Your task to perform on an android device: open device folders in google photos Image 0: 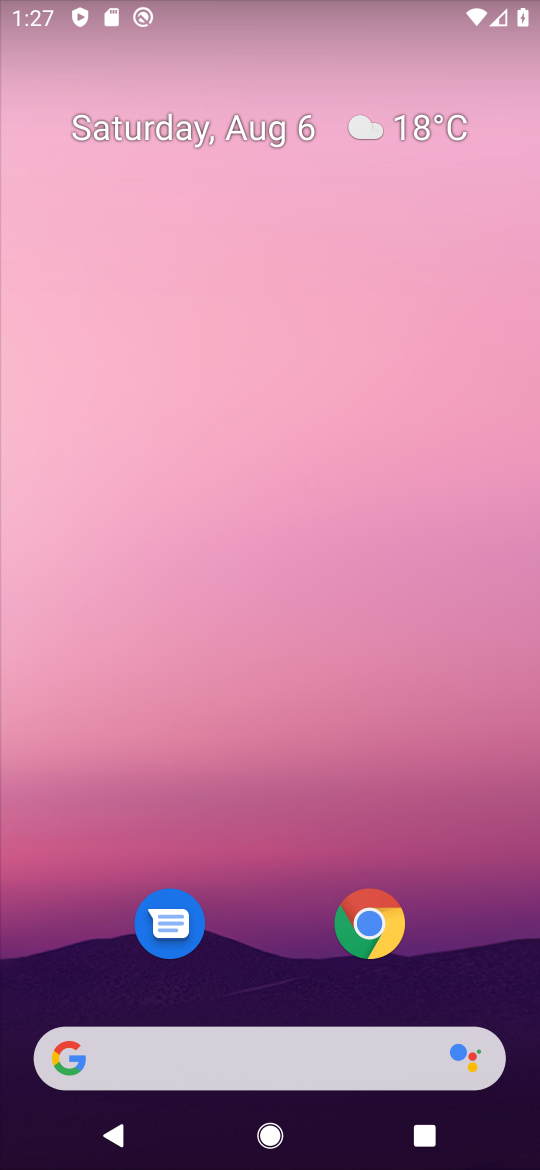
Step 0: press home button
Your task to perform on an android device: open device folders in google photos Image 1: 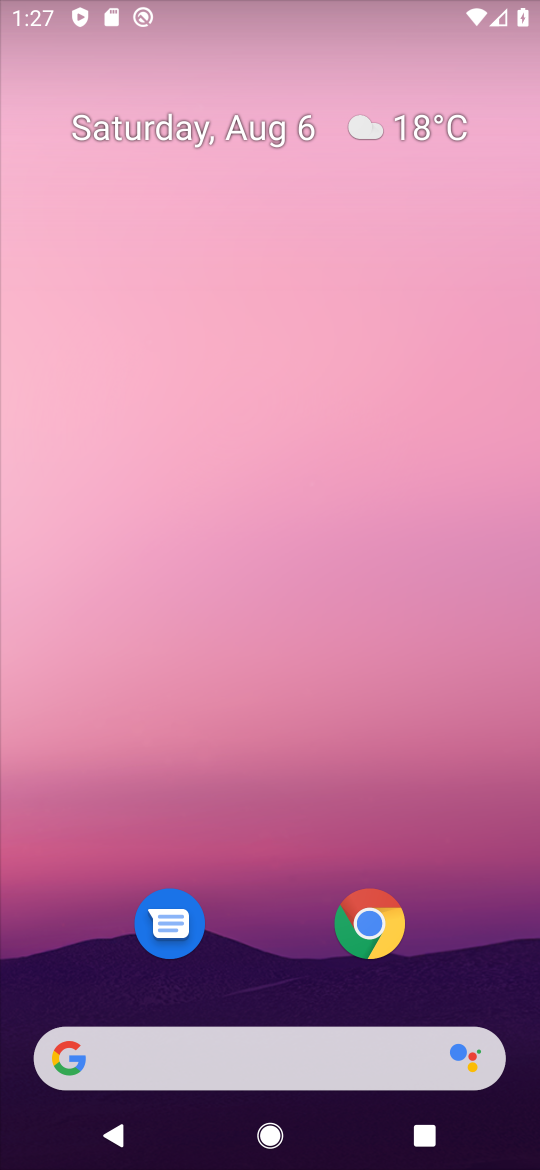
Step 1: drag from (275, 715) to (272, 103)
Your task to perform on an android device: open device folders in google photos Image 2: 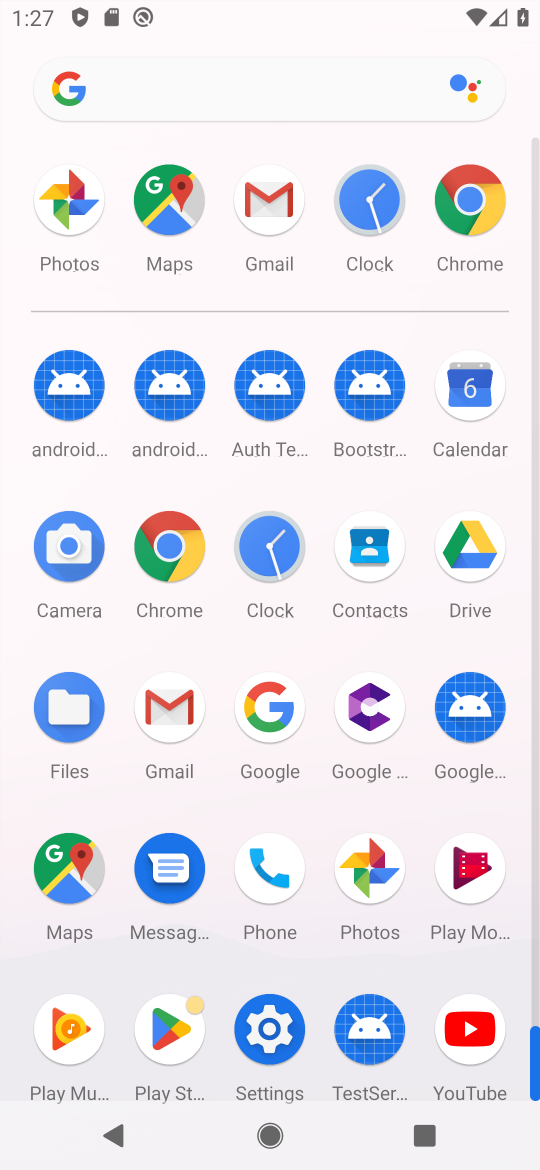
Step 2: press home button
Your task to perform on an android device: open device folders in google photos Image 3: 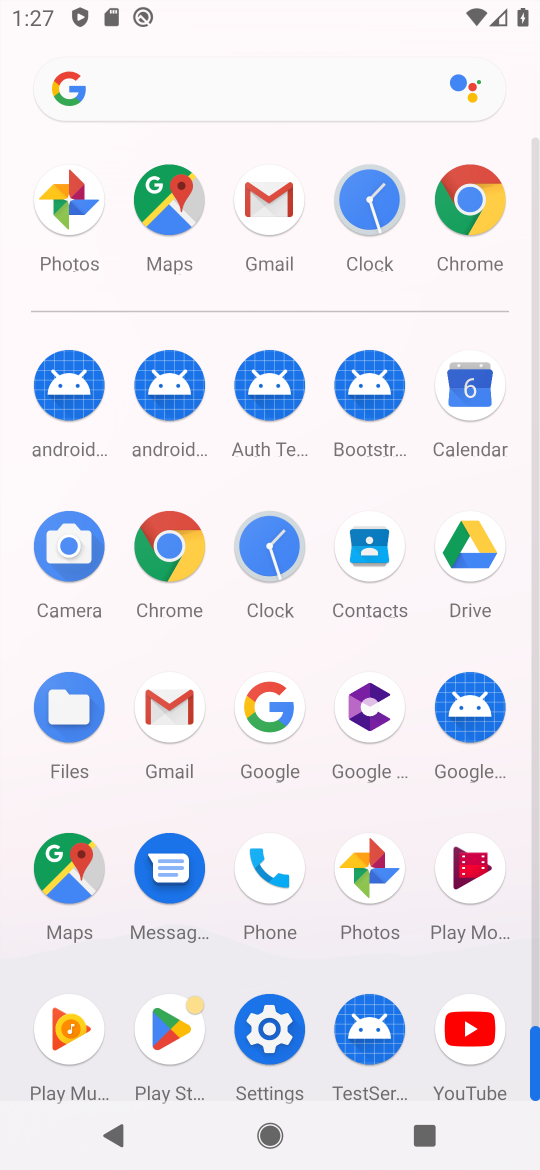
Step 3: drag from (327, 769) to (327, 297)
Your task to perform on an android device: open device folders in google photos Image 4: 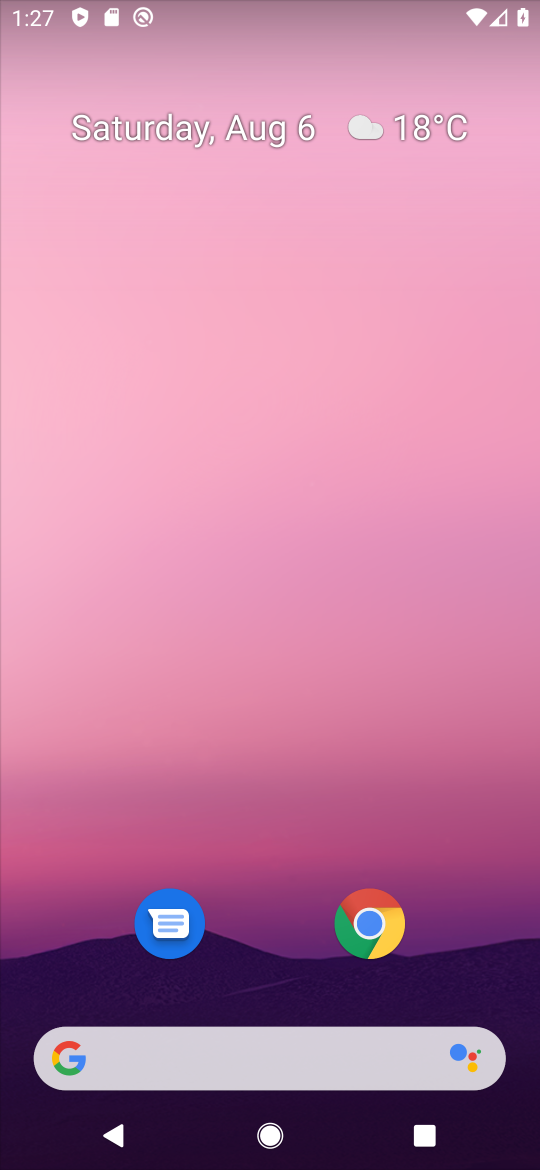
Step 4: drag from (265, 954) to (270, 116)
Your task to perform on an android device: open device folders in google photos Image 5: 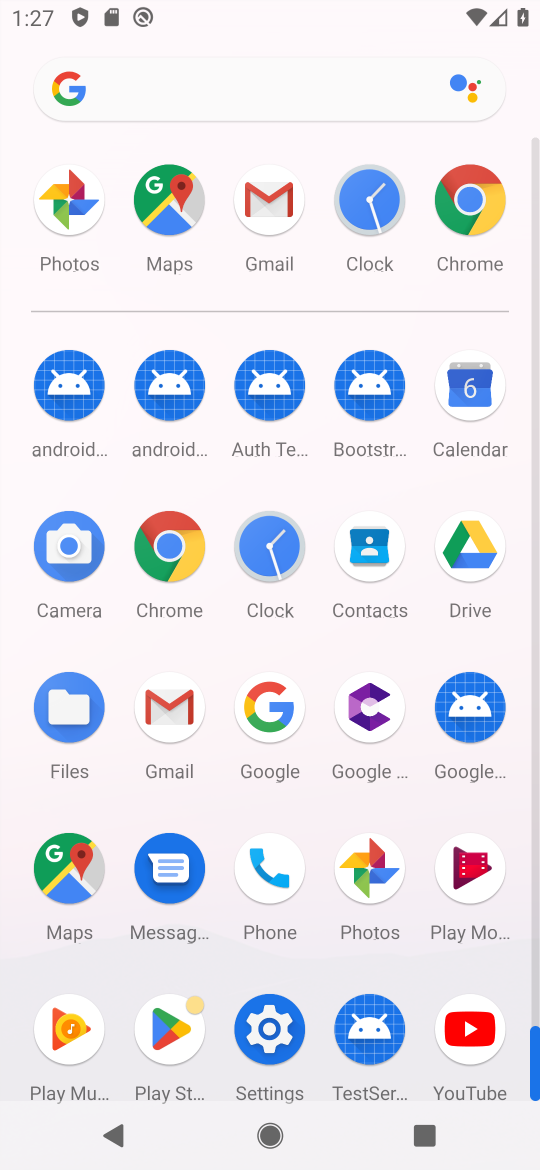
Step 5: click (377, 856)
Your task to perform on an android device: open device folders in google photos Image 6: 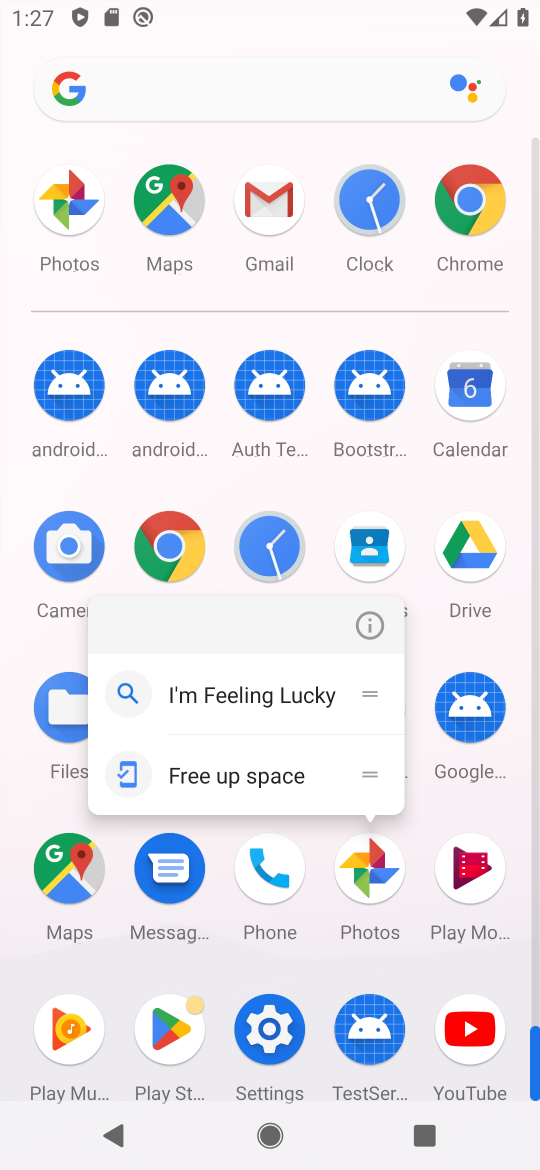
Step 6: click (371, 616)
Your task to perform on an android device: open device folders in google photos Image 7: 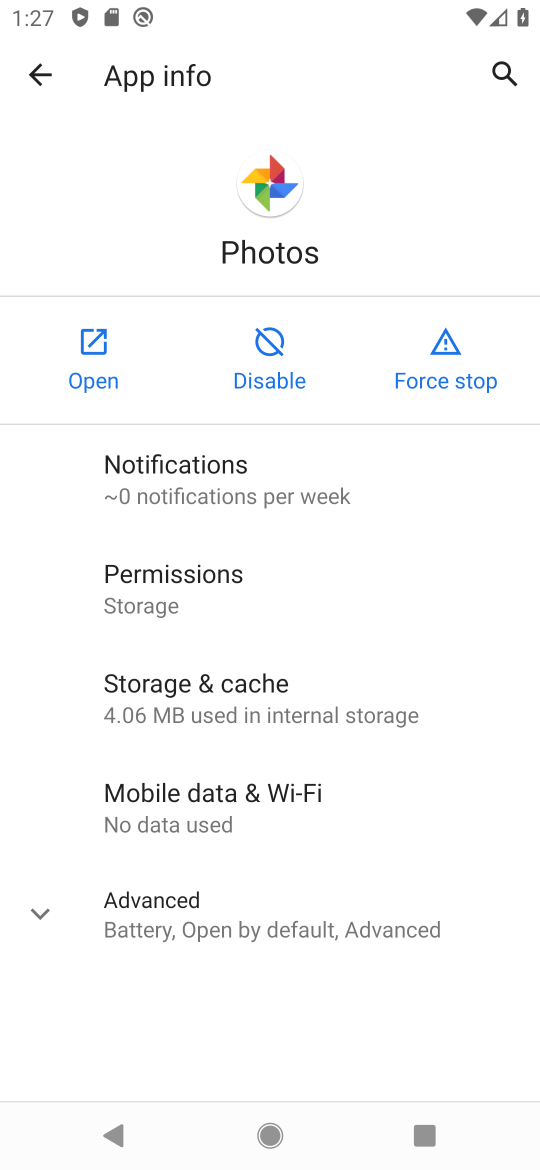
Step 7: click (91, 352)
Your task to perform on an android device: open device folders in google photos Image 8: 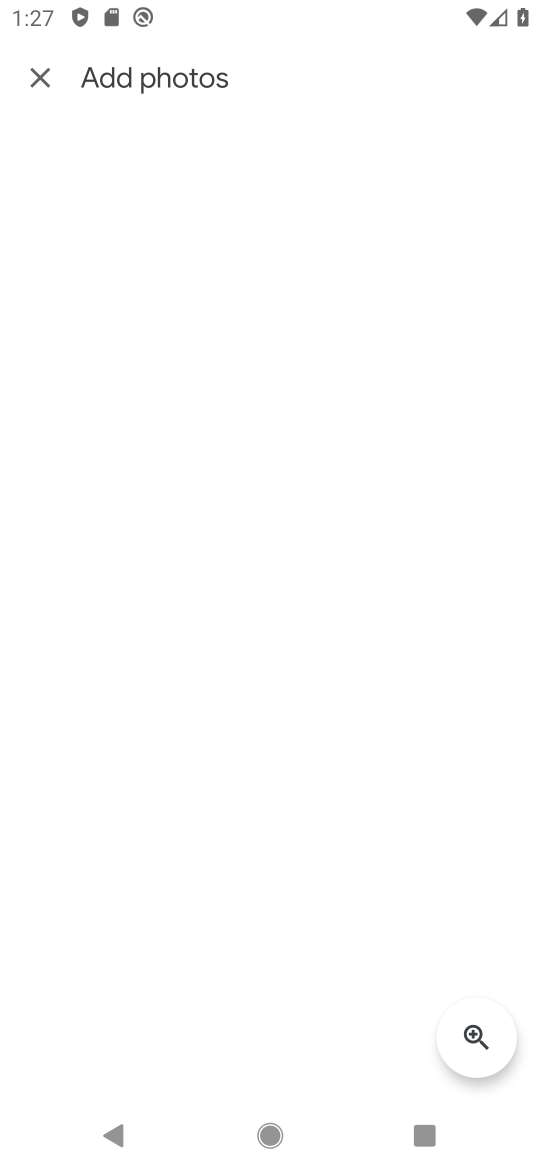
Step 8: click (51, 69)
Your task to perform on an android device: open device folders in google photos Image 9: 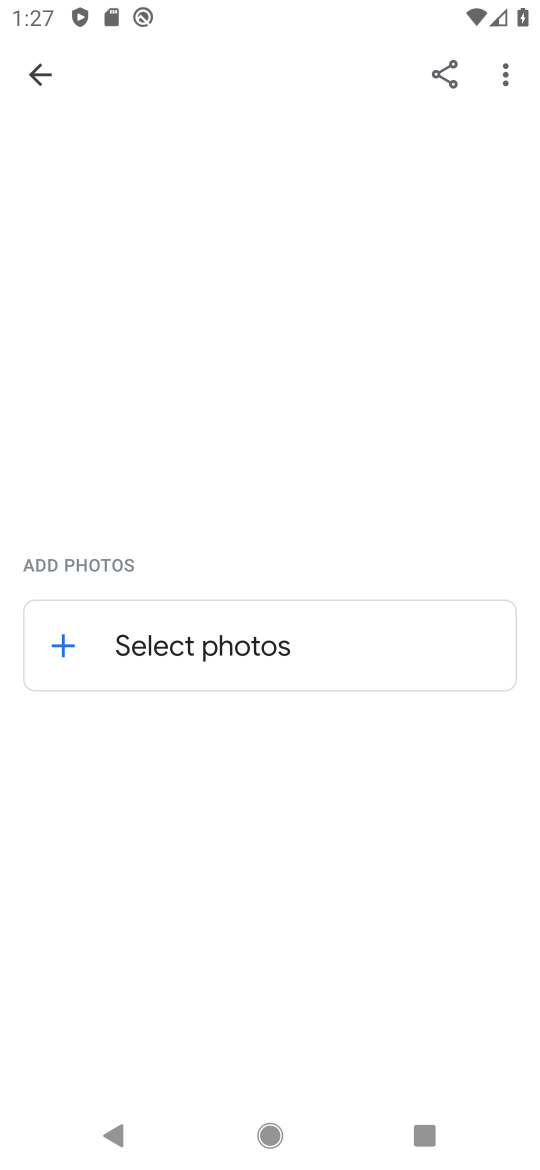
Step 9: click (66, 77)
Your task to perform on an android device: open device folders in google photos Image 10: 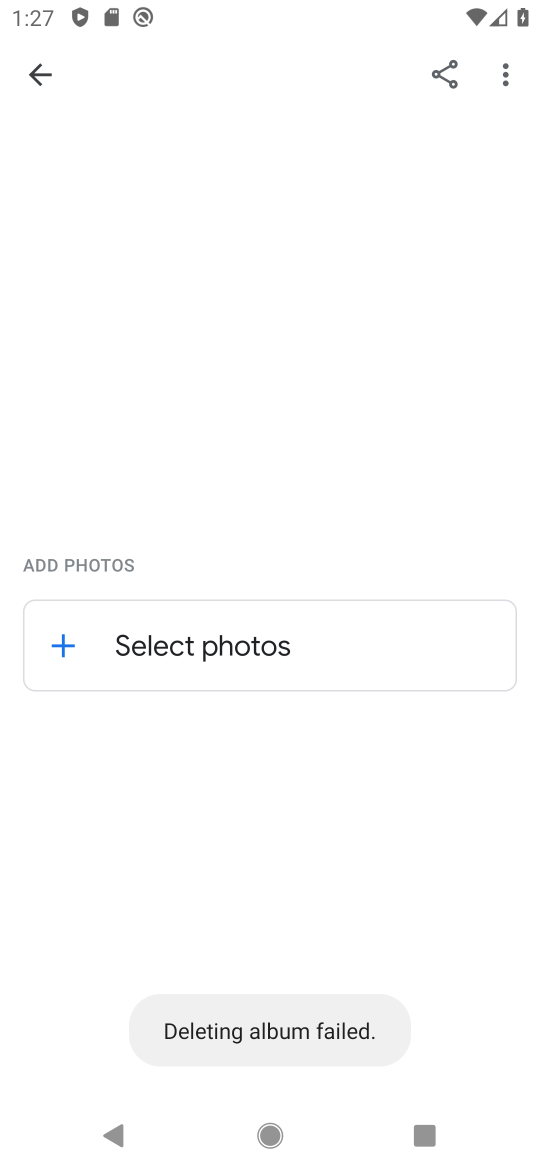
Step 10: press back button
Your task to perform on an android device: open device folders in google photos Image 11: 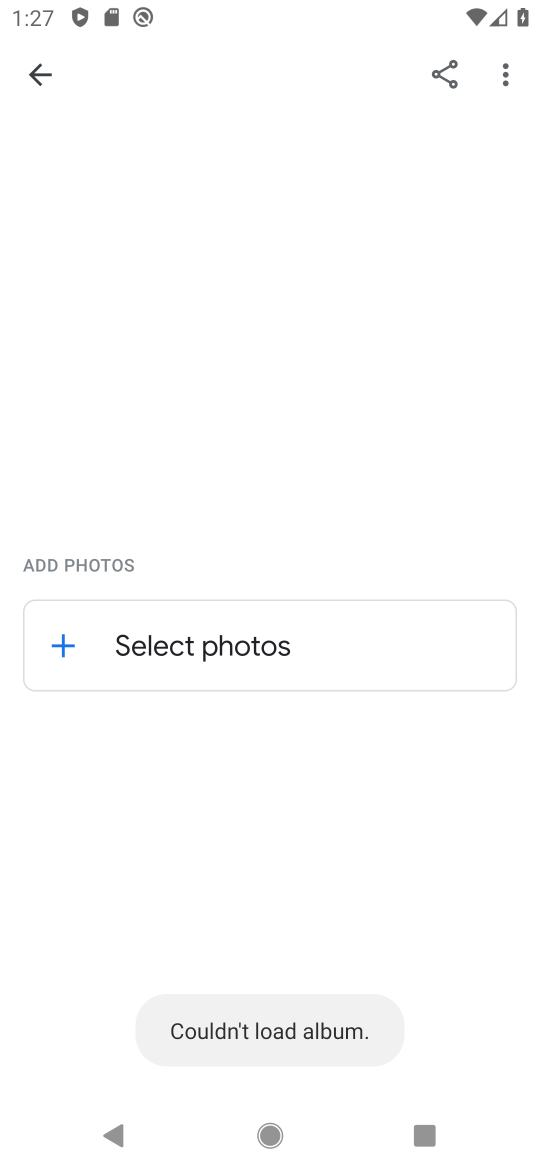
Step 11: click (38, 61)
Your task to perform on an android device: open device folders in google photos Image 12: 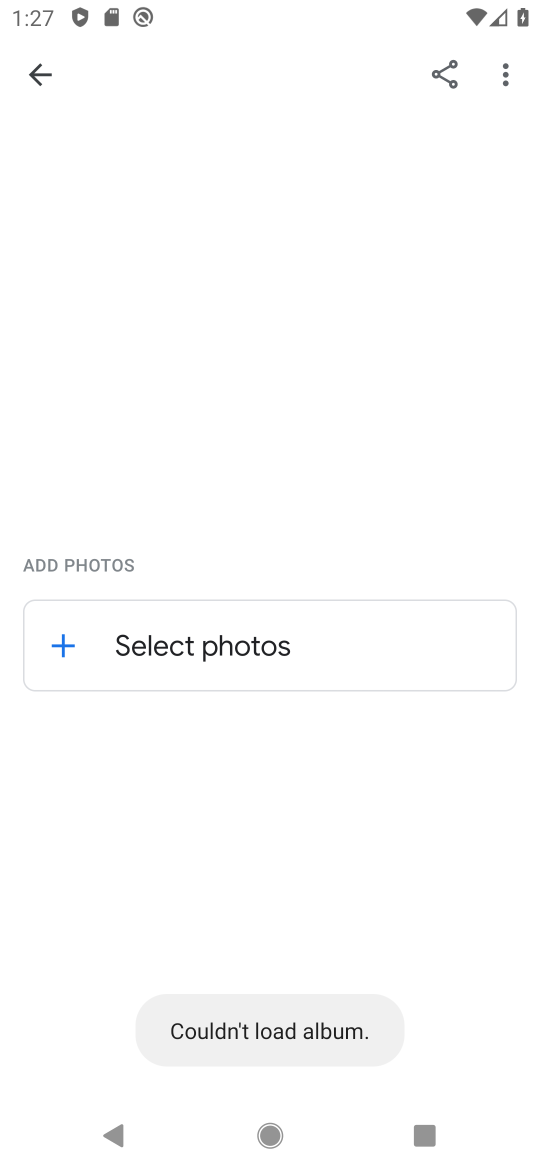
Step 12: click (17, 71)
Your task to perform on an android device: open device folders in google photos Image 13: 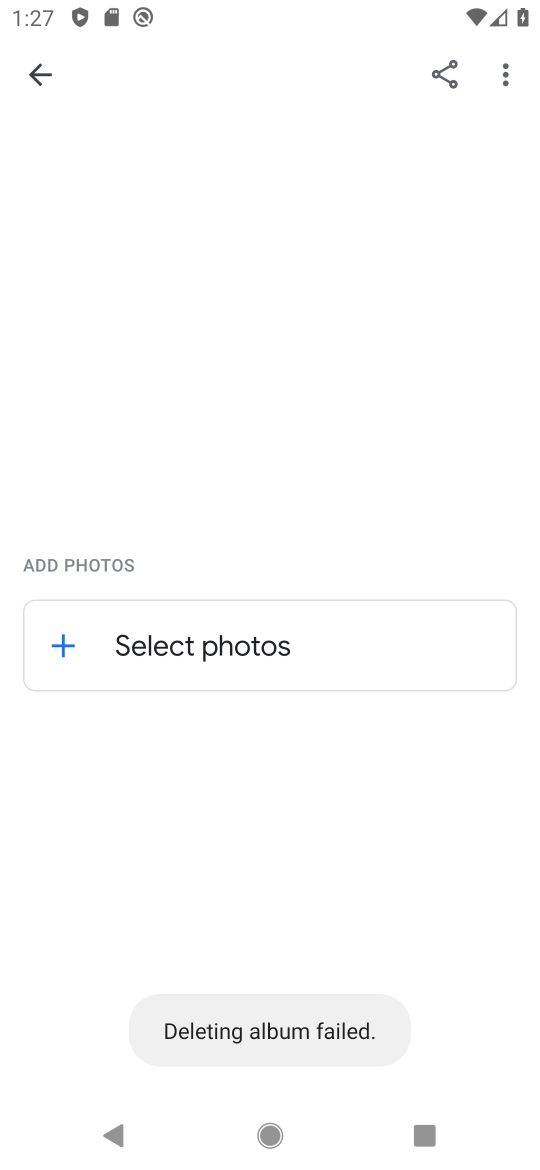
Step 13: click (14, 73)
Your task to perform on an android device: open device folders in google photos Image 14: 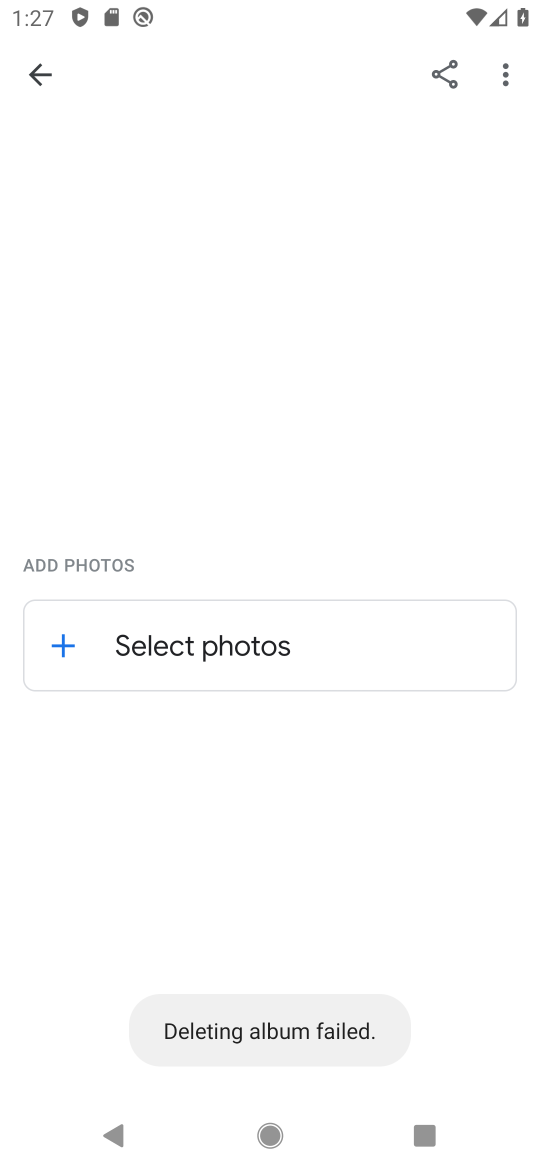
Step 14: press home button
Your task to perform on an android device: open device folders in google photos Image 15: 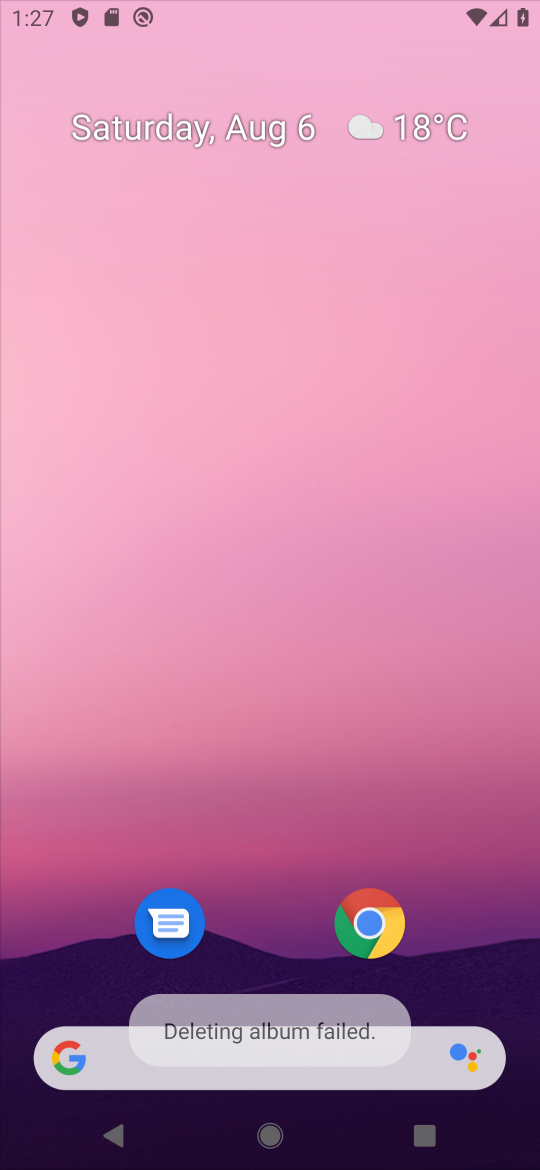
Step 15: drag from (311, 781) to (393, 220)
Your task to perform on an android device: open device folders in google photos Image 16: 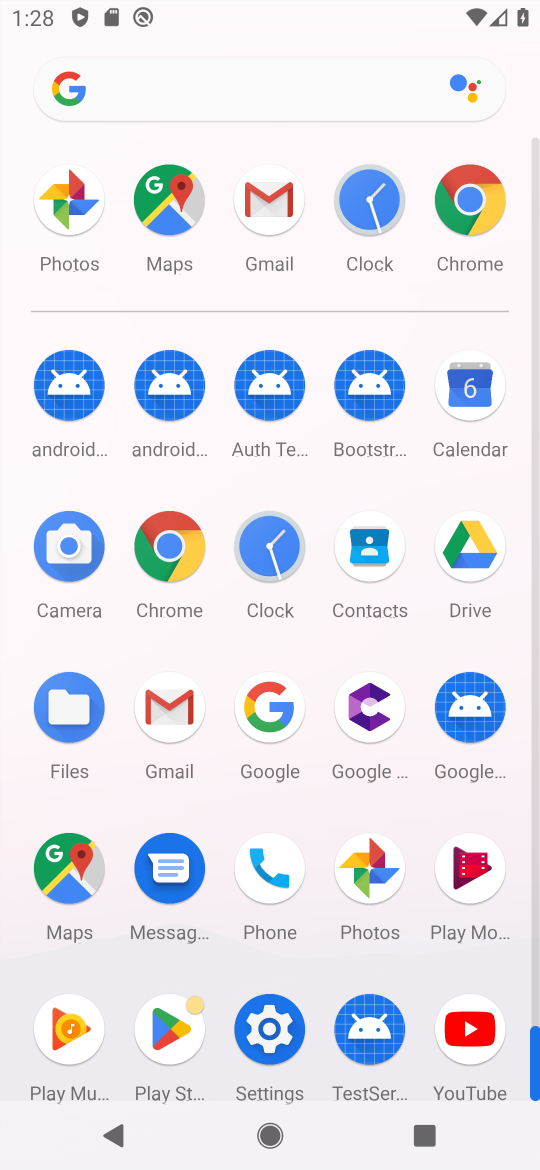
Step 16: click (368, 846)
Your task to perform on an android device: open device folders in google photos Image 17: 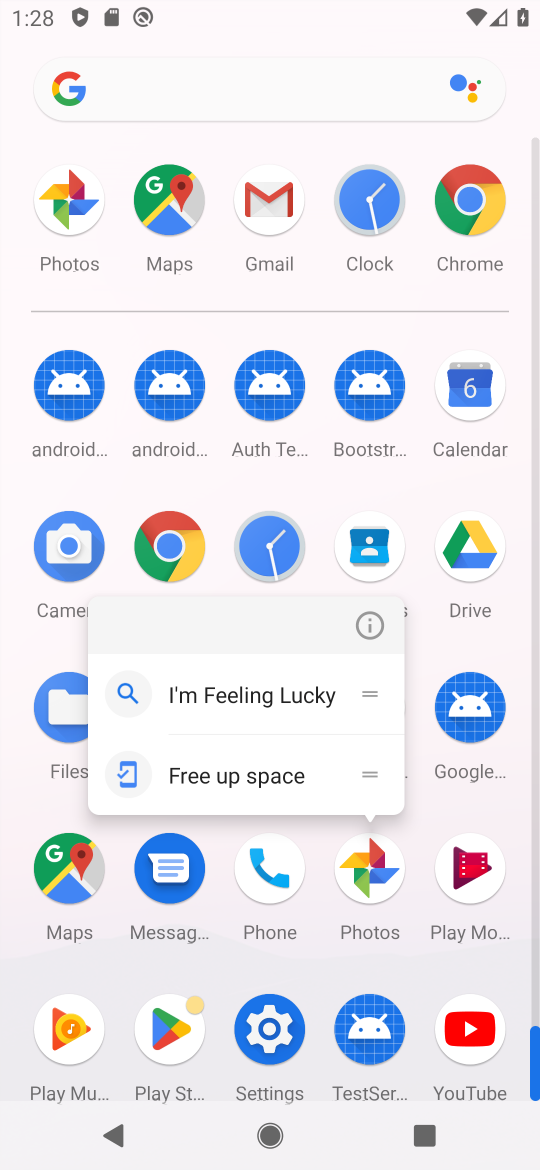
Step 17: click (364, 618)
Your task to perform on an android device: open device folders in google photos Image 18: 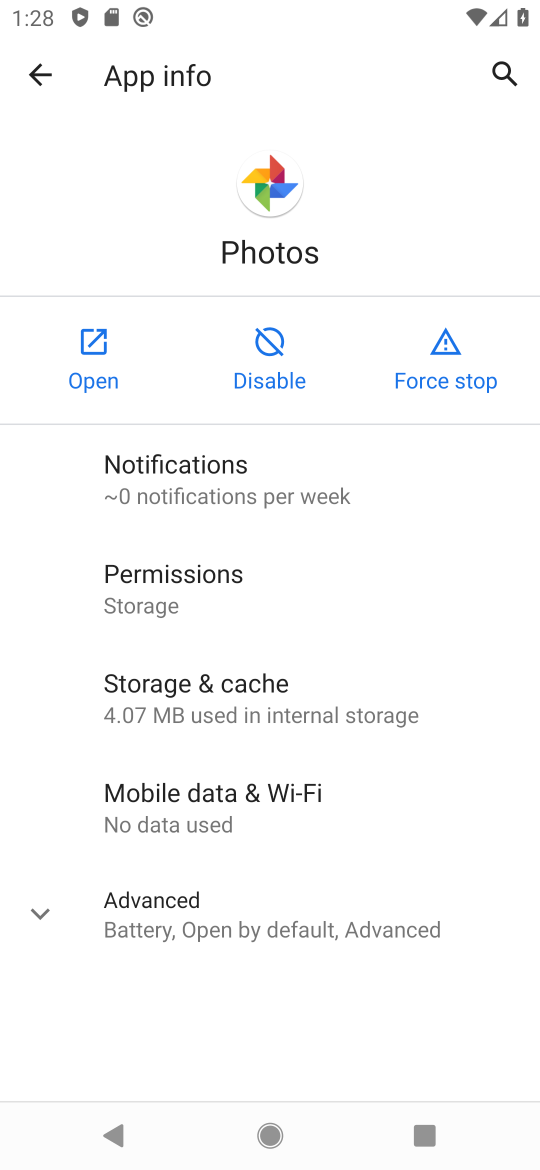
Step 18: click (106, 352)
Your task to perform on an android device: open device folders in google photos Image 19: 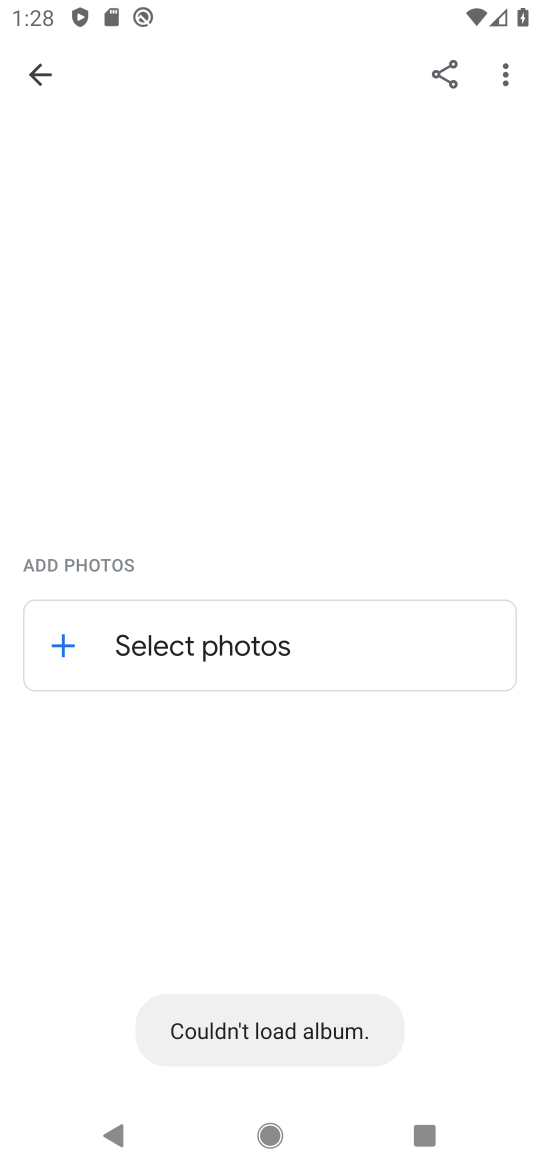
Step 19: click (36, 67)
Your task to perform on an android device: open device folders in google photos Image 20: 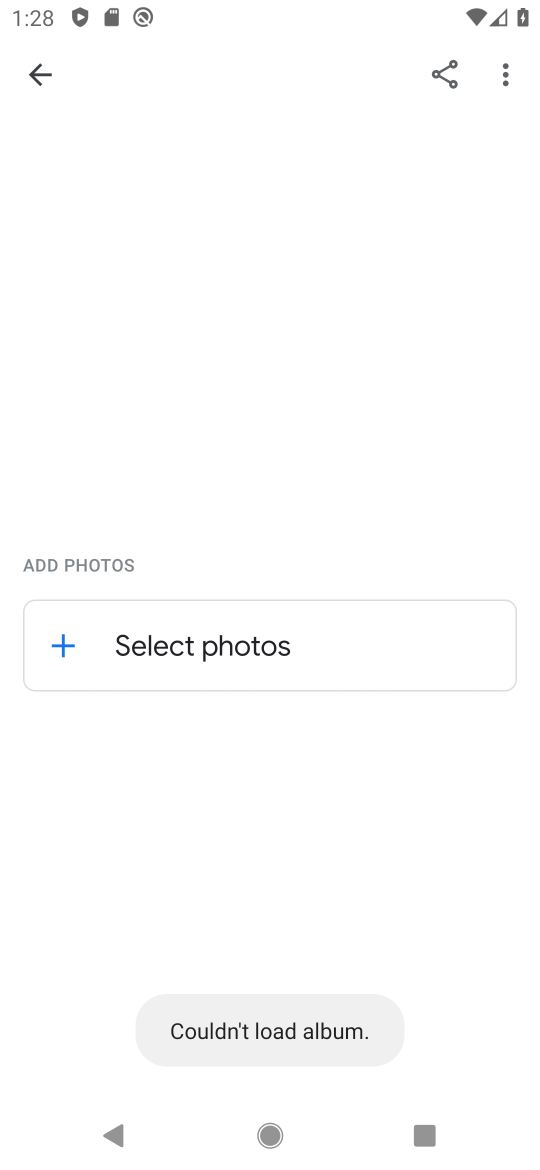
Step 20: click (36, 67)
Your task to perform on an android device: open device folders in google photos Image 21: 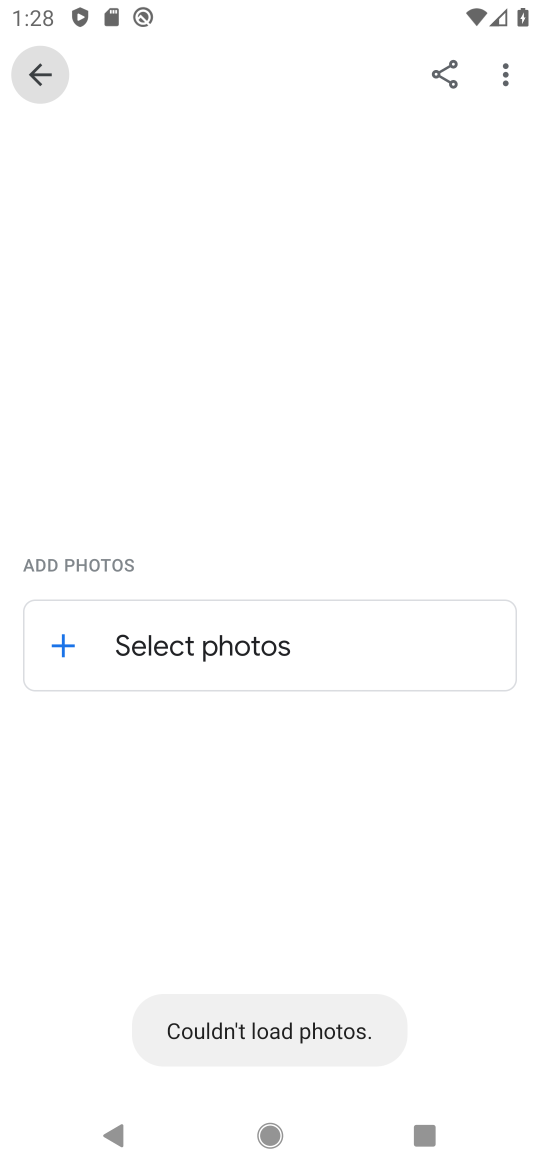
Step 21: click (36, 67)
Your task to perform on an android device: open device folders in google photos Image 22: 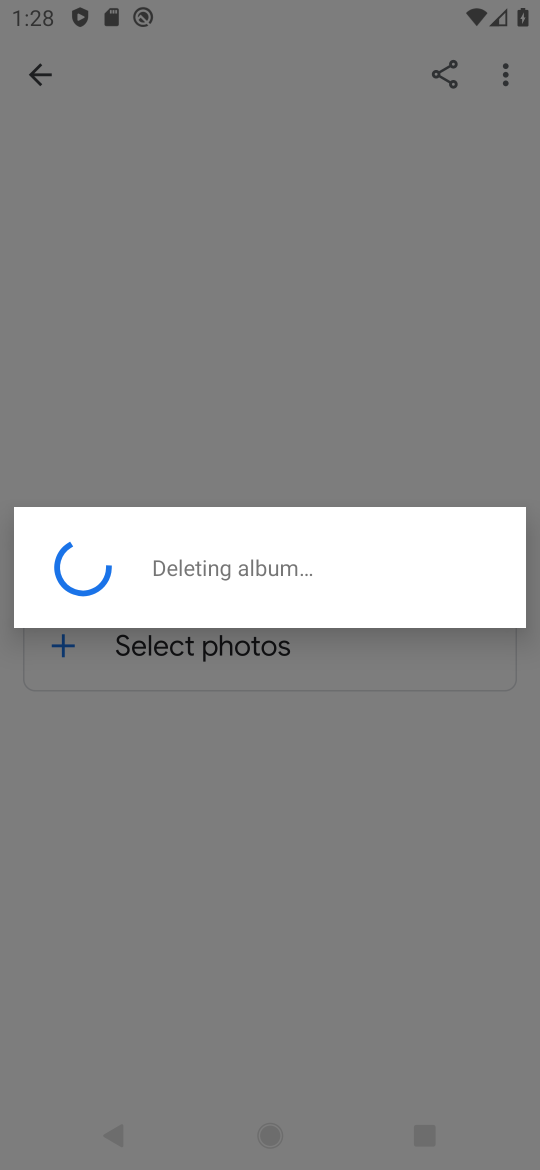
Step 22: click (36, 67)
Your task to perform on an android device: open device folders in google photos Image 23: 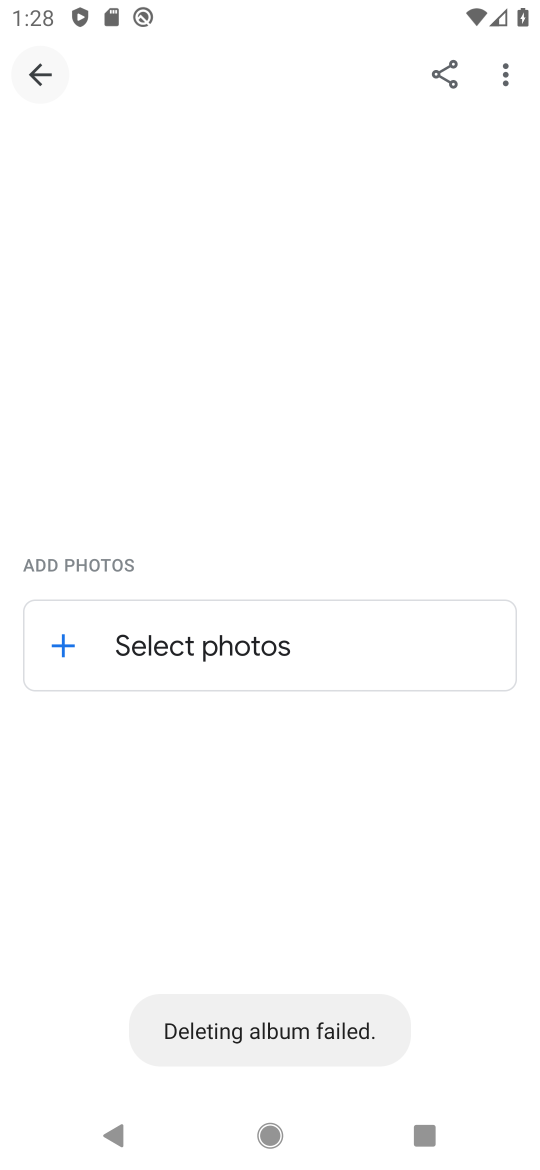
Step 23: click (31, 65)
Your task to perform on an android device: open device folders in google photos Image 24: 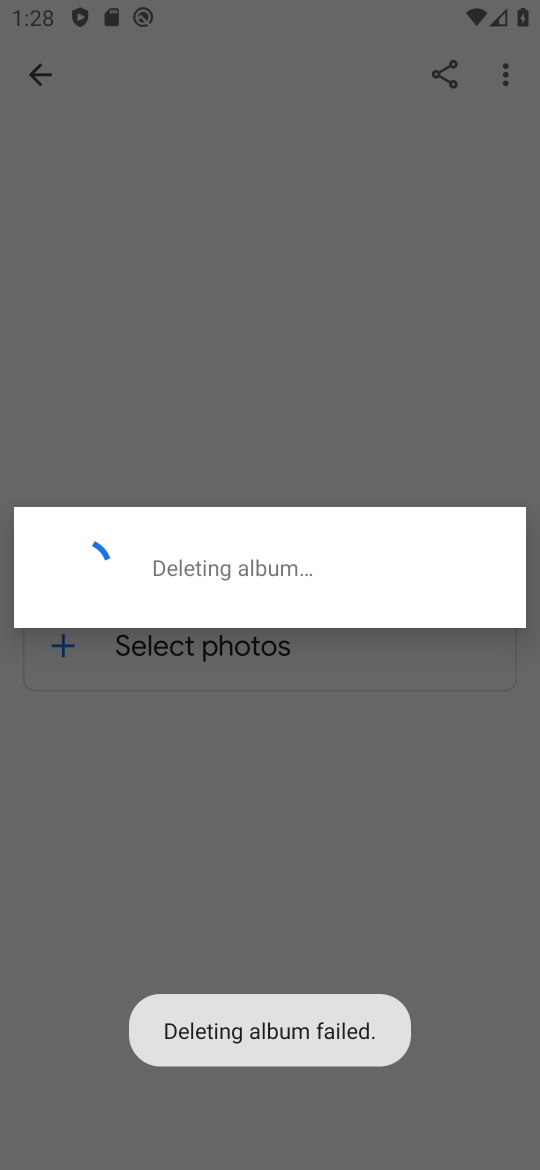
Step 24: task complete